Your task to perform on an android device: move a message to another label in the gmail app Image 0: 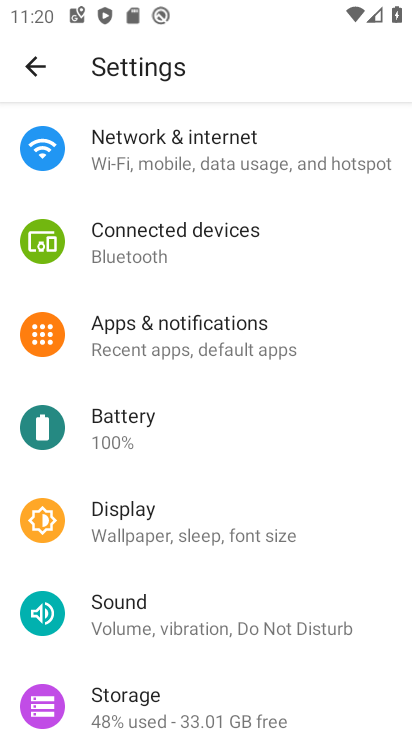
Step 0: press home button
Your task to perform on an android device: move a message to another label in the gmail app Image 1: 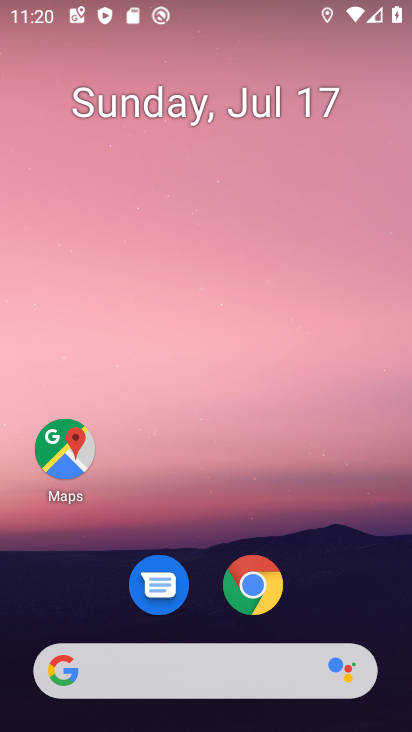
Step 1: drag from (243, 506) to (243, 16)
Your task to perform on an android device: move a message to another label in the gmail app Image 2: 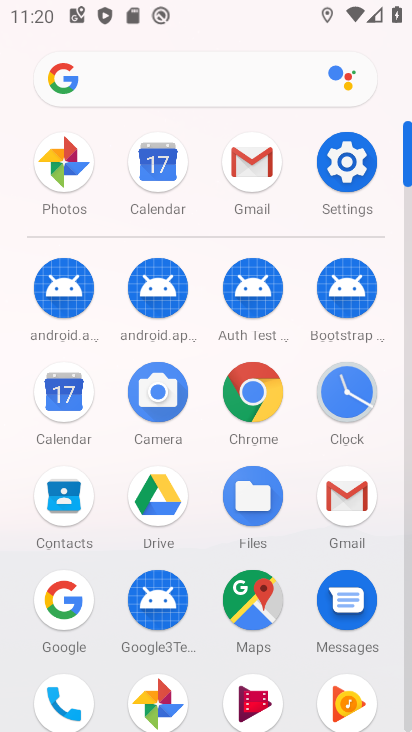
Step 2: click (240, 168)
Your task to perform on an android device: move a message to another label in the gmail app Image 3: 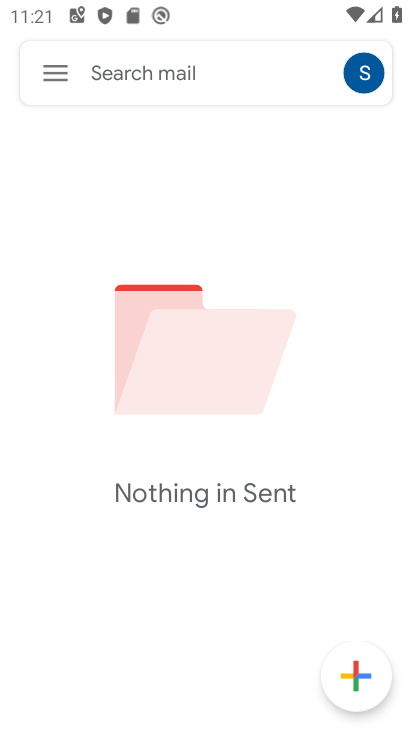
Step 3: click (58, 74)
Your task to perform on an android device: move a message to another label in the gmail app Image 4: 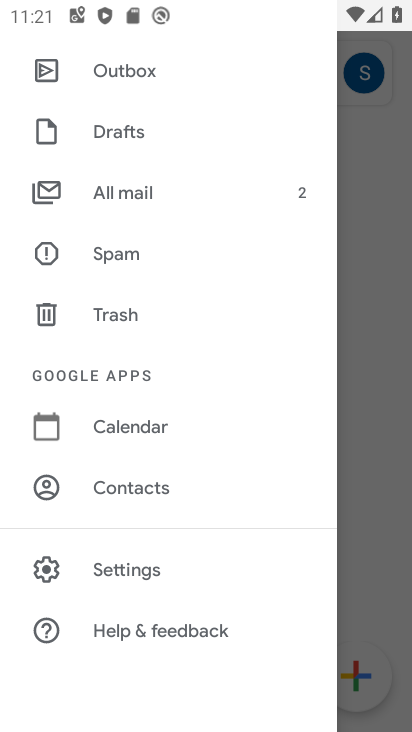
Step 4: click (127, 194)
Your task to perform on an android device: move a message to another label in the gmail app Image 5: 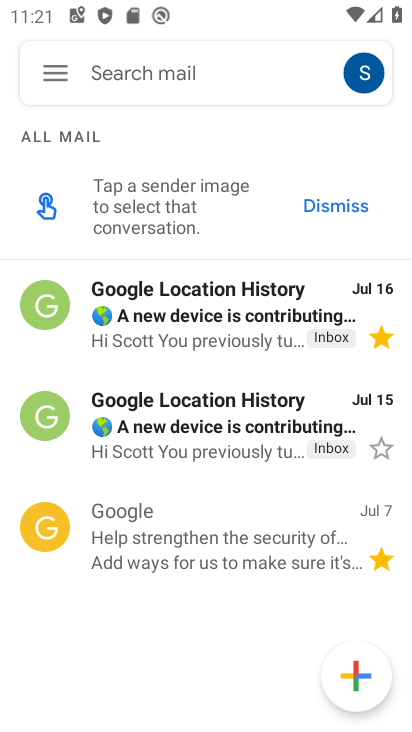
Step 5: click (299, 533)
Your task to perform on an android device: move a message to another label in the gmail app Image 6: 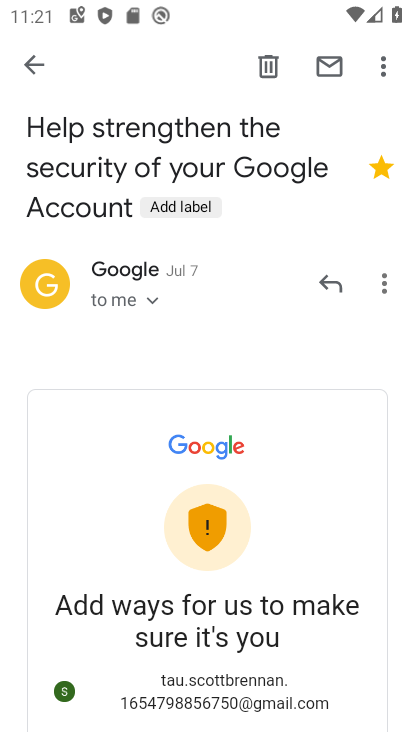
Step 6: click (385, 57)
Your task to perform on an android device: move a message to another label in the gmail app Image 7: 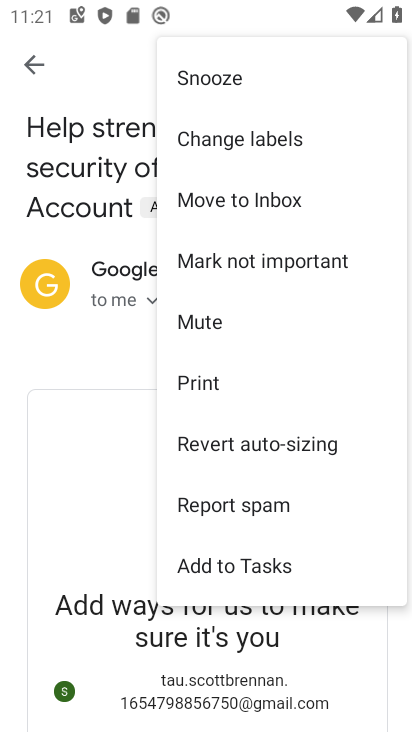
Step 7: click (279, 194)
Your task to perform on an android device: move a message to another label in the gmail app Image 8: 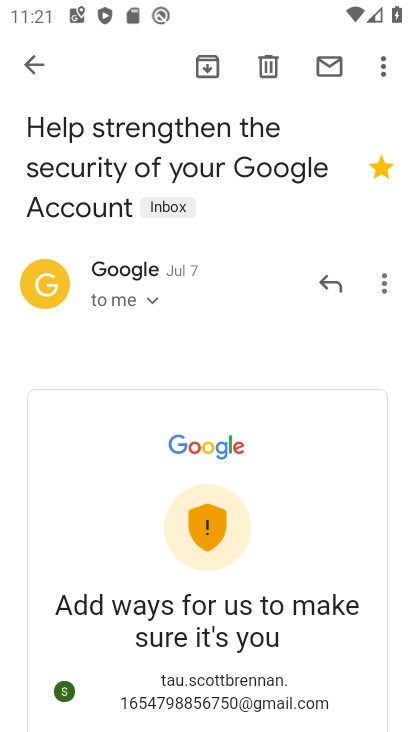
Step 8: task complete